Your task to perform on an android device: change timer sound Image 0: 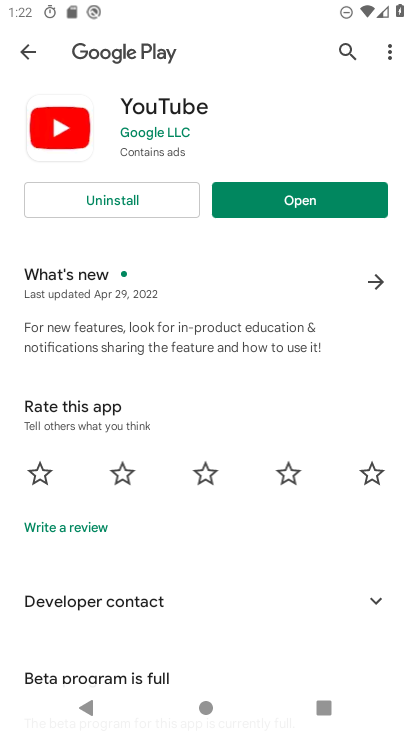
Step 0: press home button
Your task to perform on an android device: change timer sound Image 1: 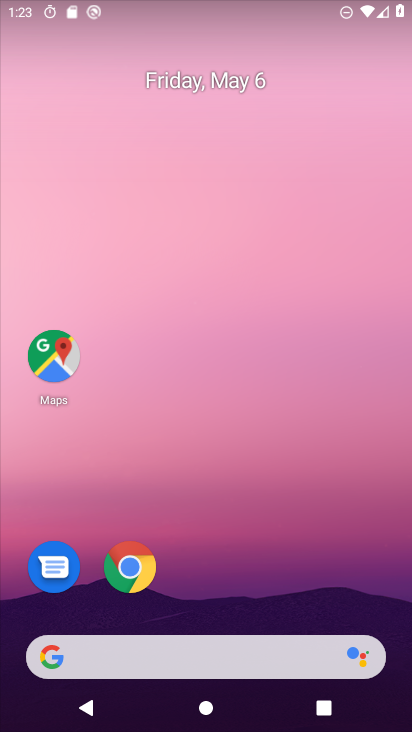
Step 1: drag from (348, 681) to (348, 180)
Your task to perform on an android device: change timer sound Image 2: 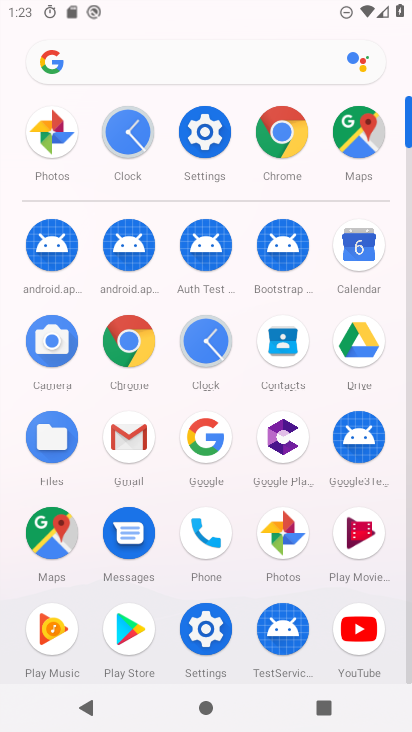
Step 2: click (196, 358)
Your task to perform on an android device: change timer sound Image 3: 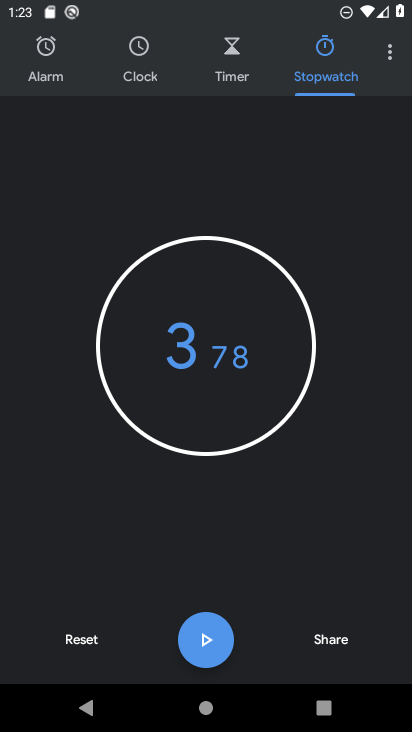
Step 3: click (386, 54)
Your task to perform on an android device: change timer sound Image 4: 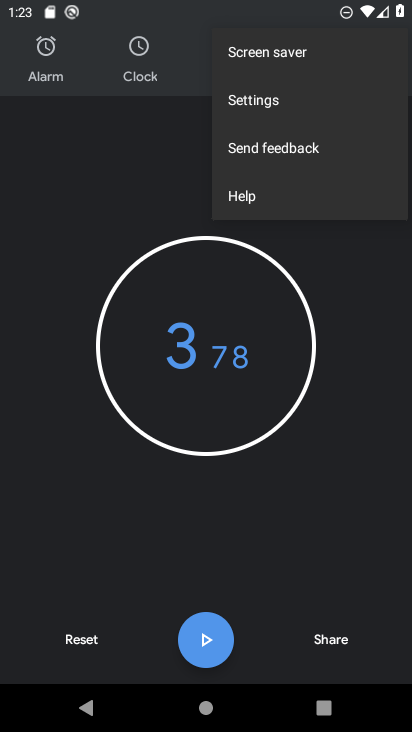
Step 4: click (282, 101)
Your task to perform on an android device: change timer sound Image 5: 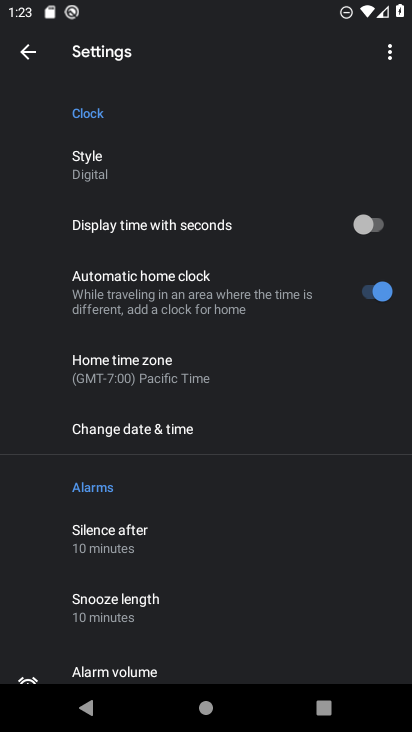
Step 5: drag from (163, 512) to (169, 261)
Your task to perform on an android device: change timer sound Image 6: 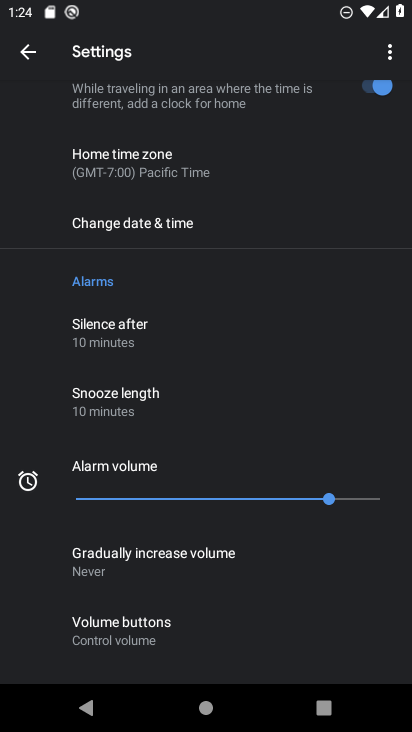
Step 6: drag from (180, 559) to (253, 236)
Your task to perform on an android device: change timer sound Image 7: 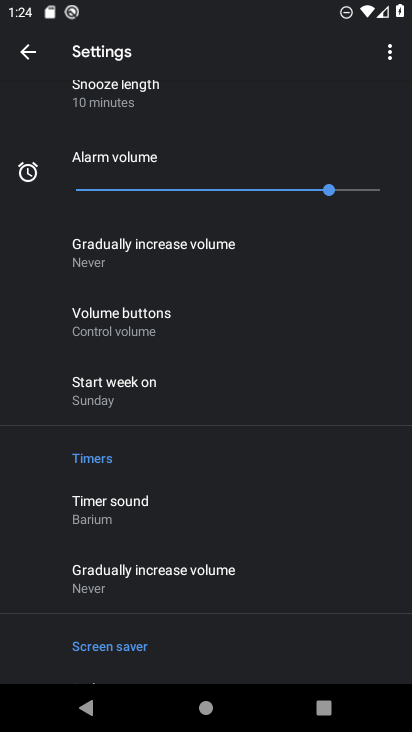
Step 7: click (170, 497)
Your task to perform on an android device: change timer sound Image 8: 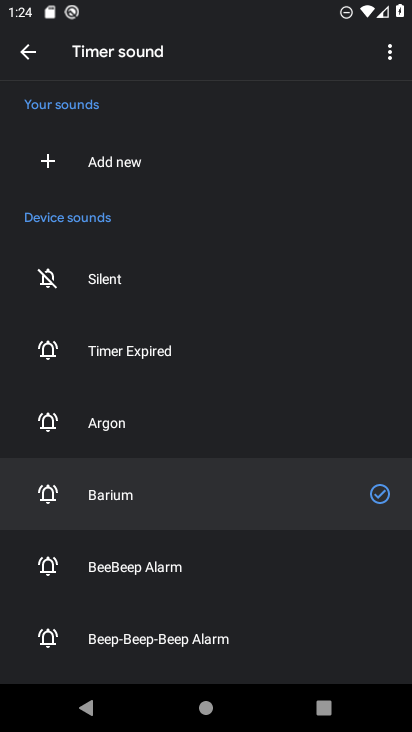
Step 8: click (172, 595)
Your task to perform on an android device: change timer sound Image 9: 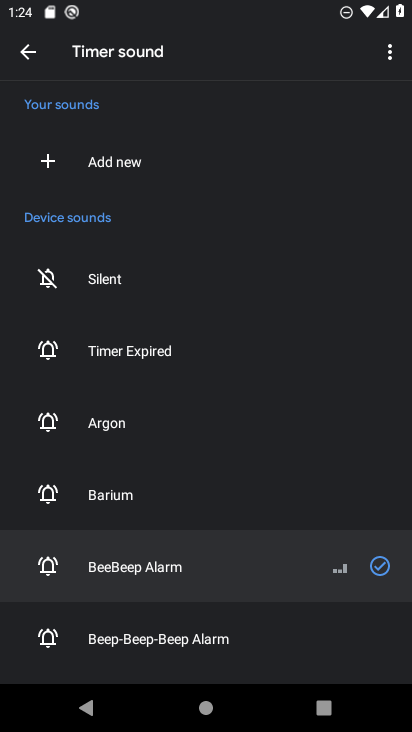
Step 9: task complete